Your task to perform on an android device: Go to CNN.com Image 0: 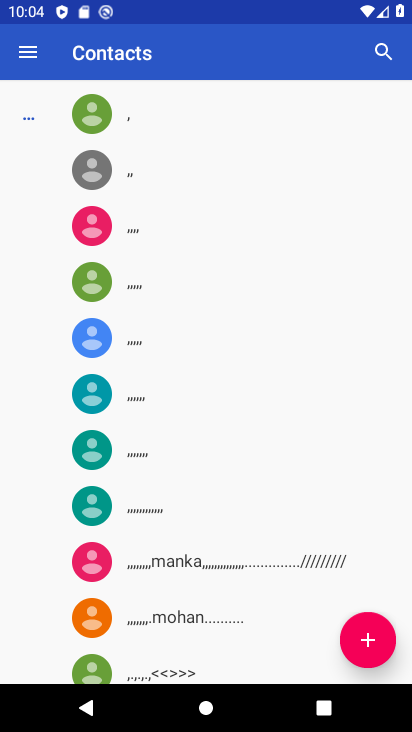
Step 0: press home button
Your task to perform on an android device: Go to CNN.com Image 1: 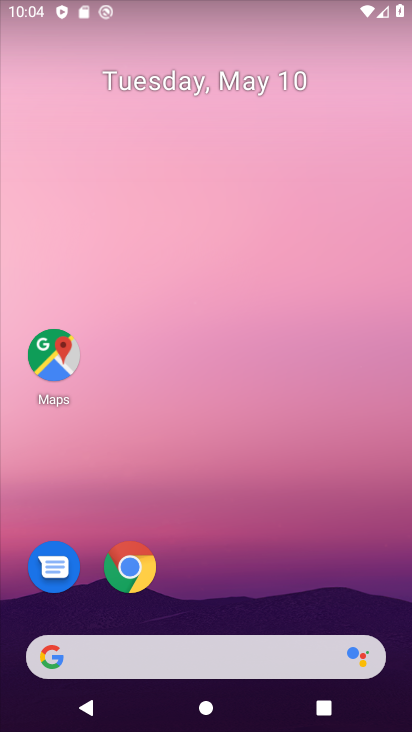
Step 1: click (186, 665)
Your task to perform on an android device: Go to CNN.com Image 2: 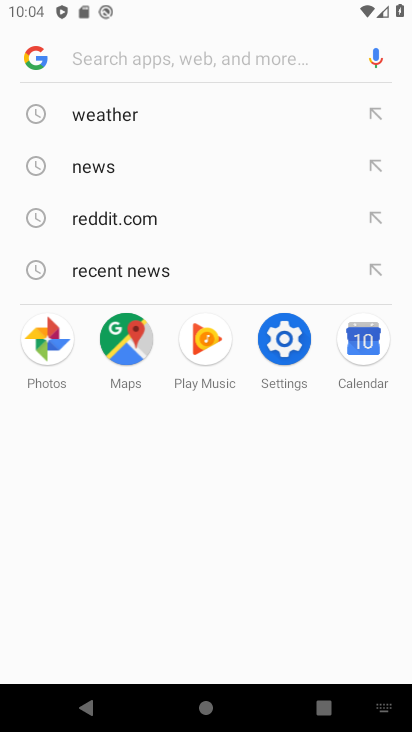
Step 2: type "CNN.com"
Your task to perform on an android device: Go to CNN.com Image 3: 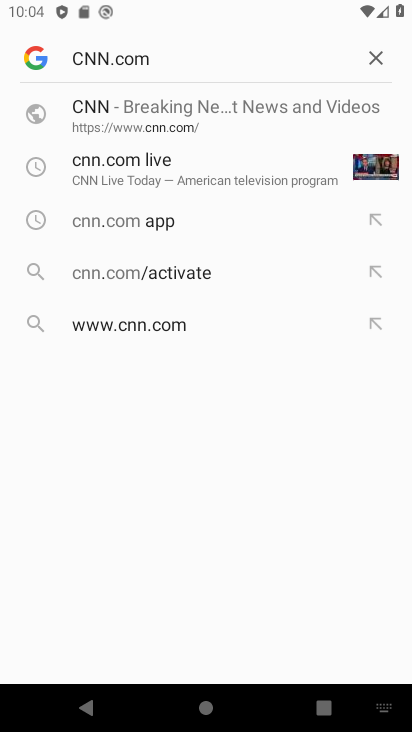
Step 3: click (233, 119)
Your task to perform on an android device: Go to CNN.com Image 4: 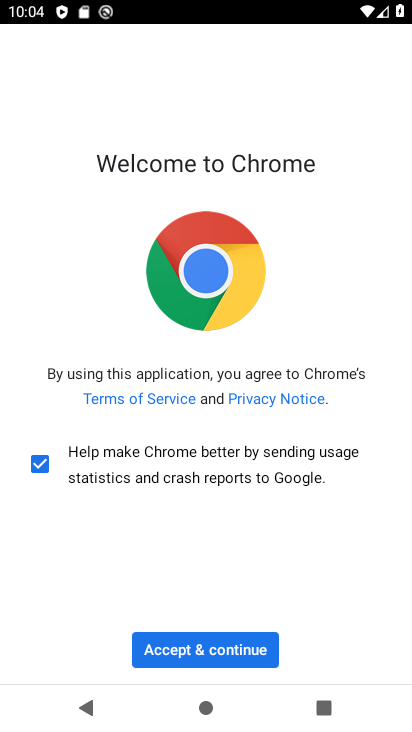
Step 4: click (220, 637)
Your task to perform on an android device: Go to CNN.com Image 5: 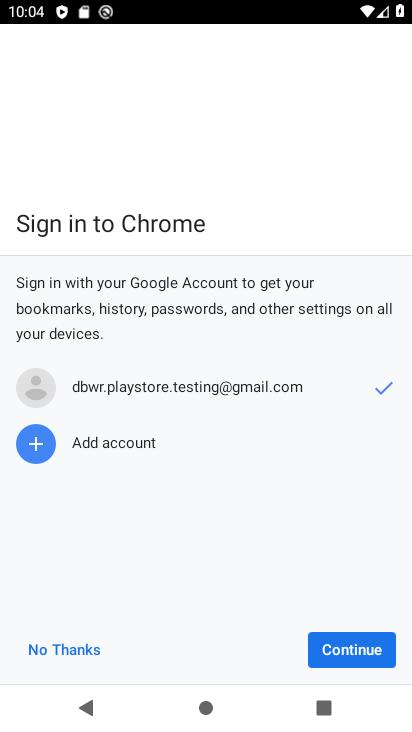
Step 5: click (342, 649)
Your task to perform on an android device: Go to CNN.com Image 6: 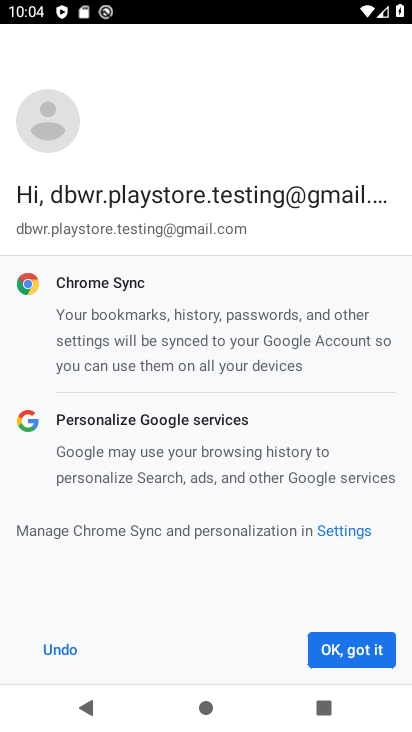
Step 6: click (342, 649)
Your task to perform on an android device: Go to CNN.com Image 7: 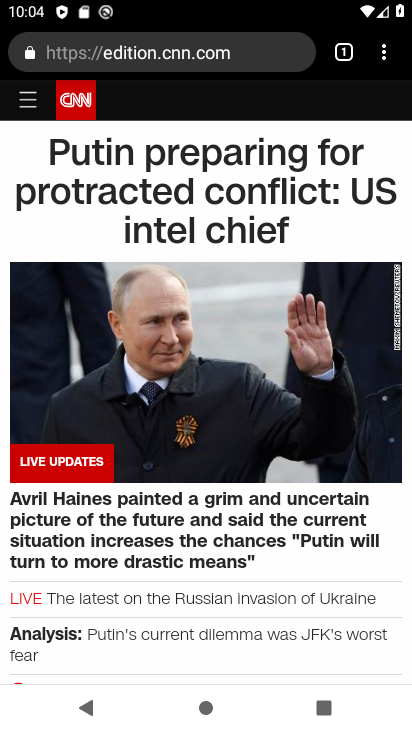
Step 7: task complete